Your task to perform on an android device: Go to Yahoo.com Image 0: 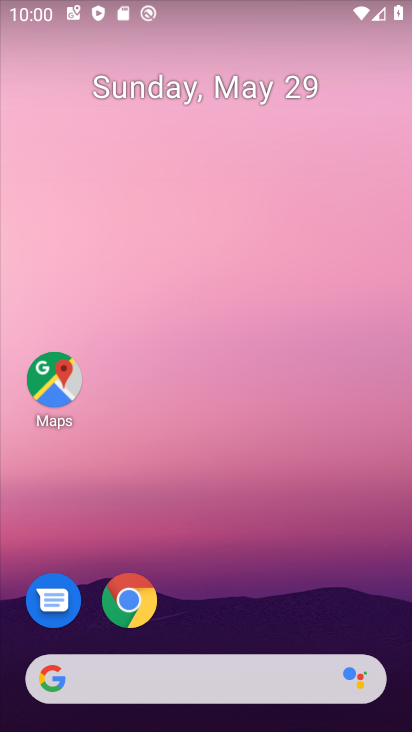
Step 0: click (129, 595)
Your task to perform on an android device: Go to Yahoo.com Image 1: 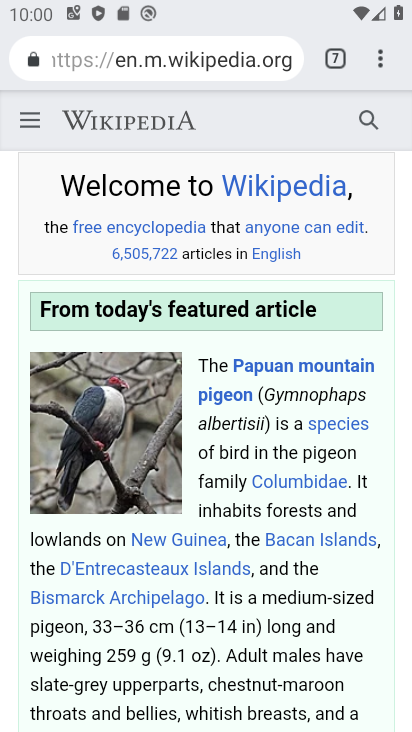
Step 1: click (382, 59)
Your task to perform on an android device: Go to Yahoo.com Image 2: 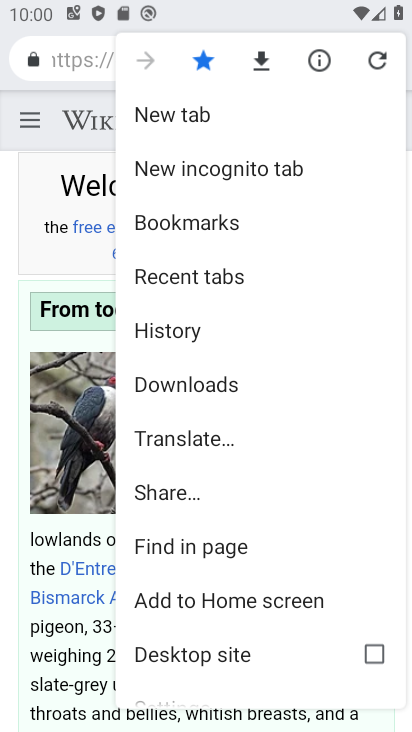
Step 2: click (162, 113)
Your task to perform on an android device: Go to Yahoo.com Image 3: 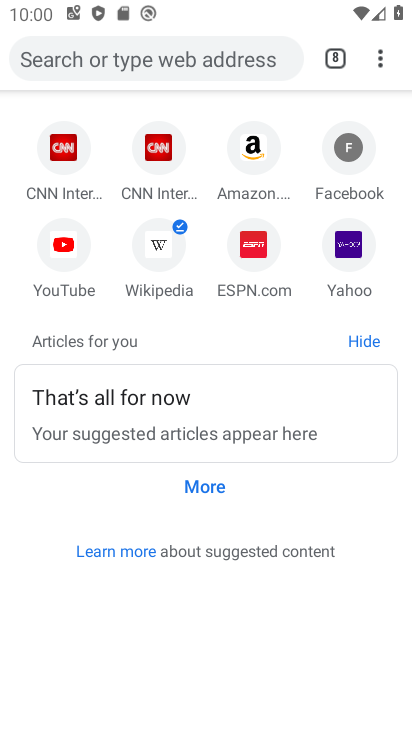
Step 3: click (351, 250)
Your task to perform on an android device: Go to Yahoo.com Image 4: 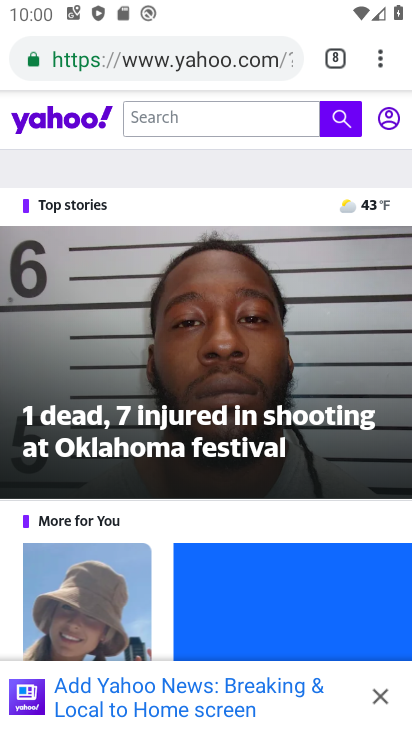
Step 4: task complete